Your task to perform on an android device: Check the latest 3D printers on Target. Image 0: 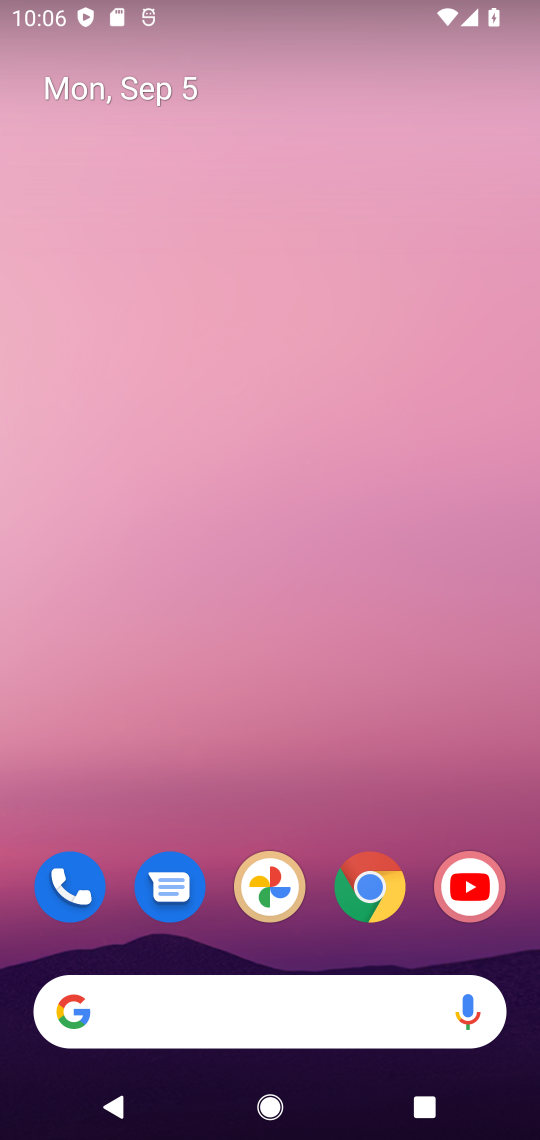
Step 0: click (359, 886)
Your task to perform on an android device: Check the latest 3D printers on Target. Image 1: 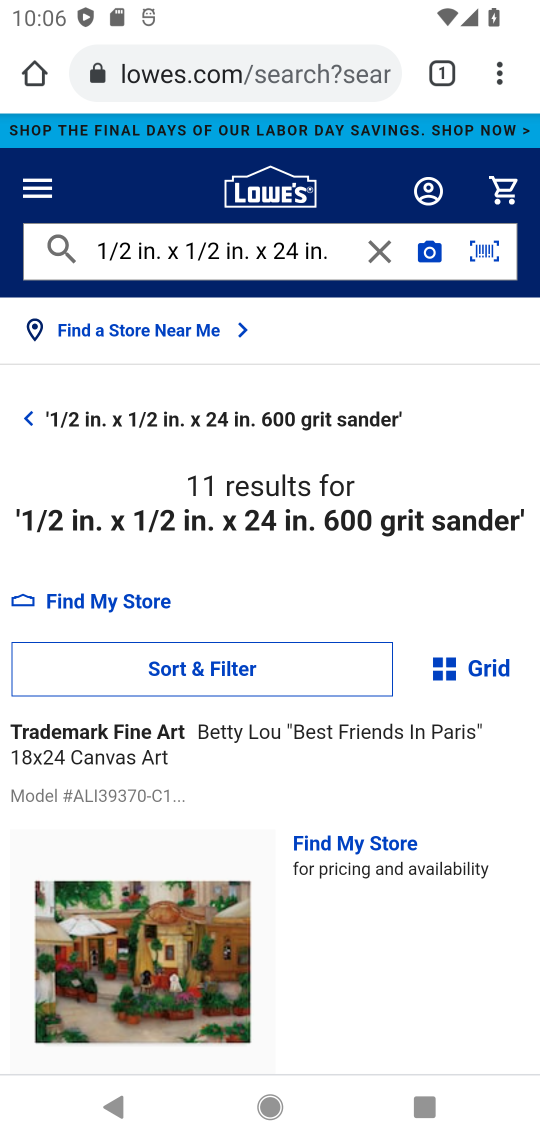
Step 1: click (320, 78)
Your task to perform on an android device: Check the latest 3D printers on Target. Image 2: 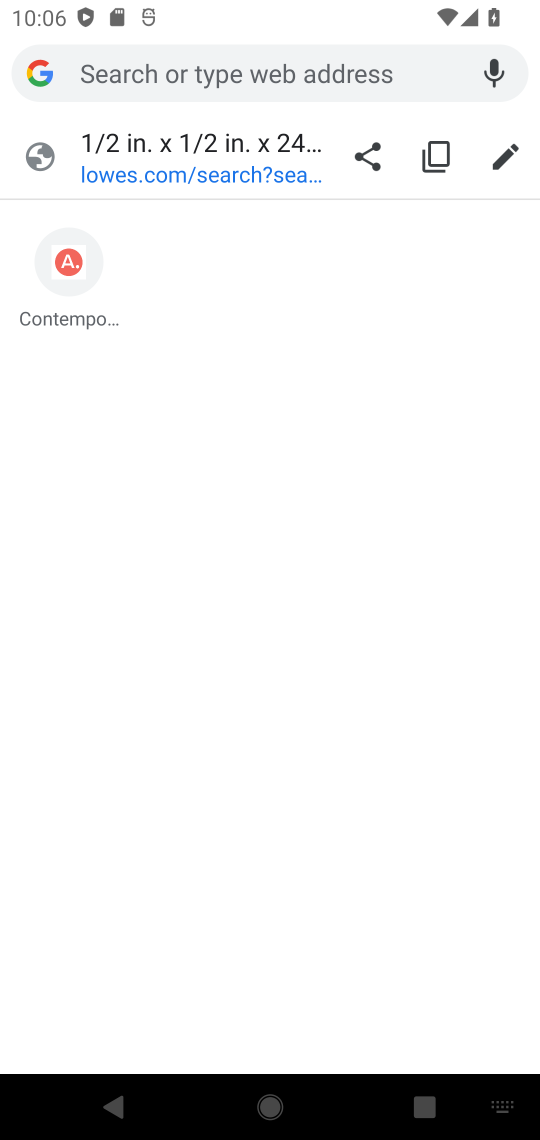
Step 2: type "target"
Your task to perform on an android device: Check the latest 3D printers on Target. Image 3: 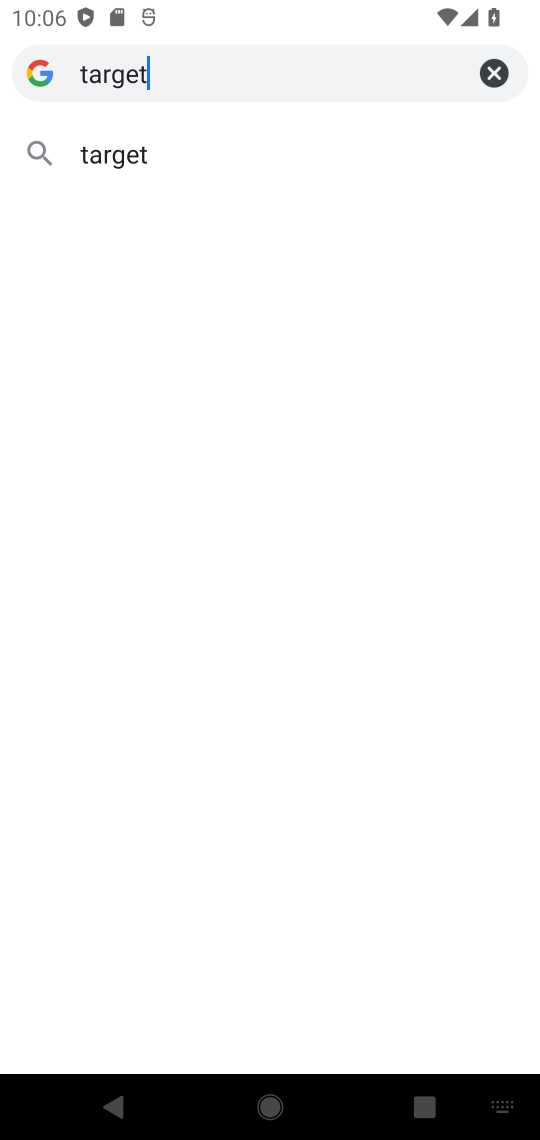
Step 3: click (140, 161)
Your task to perform on an android device: Check the latest 3D printers on Target. Image 4: 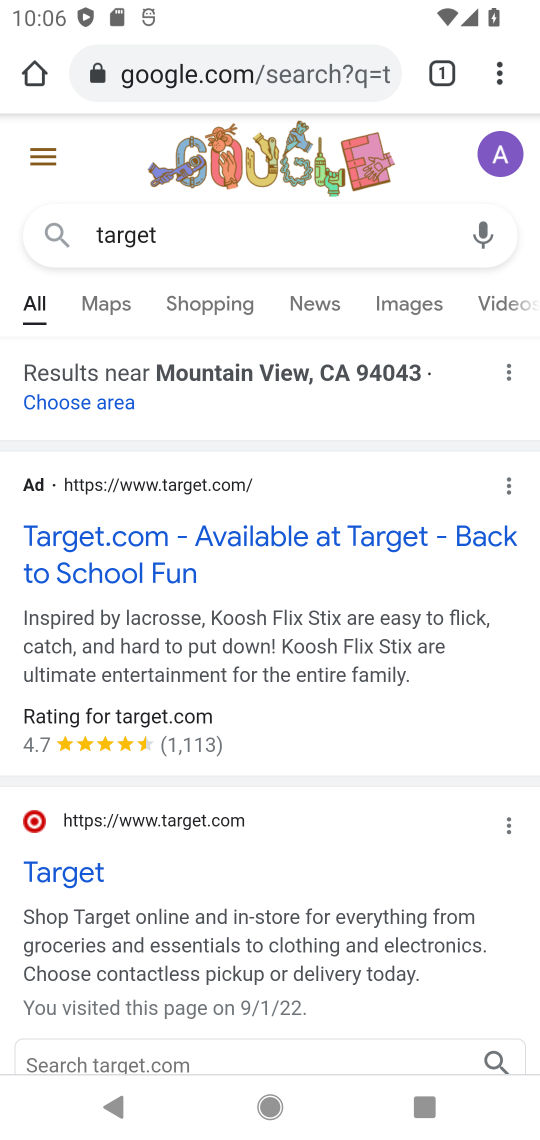
Step 4: click (178, 558)
Your task to perform on an android device: Check the latest 3D printers on Target. Image 5: 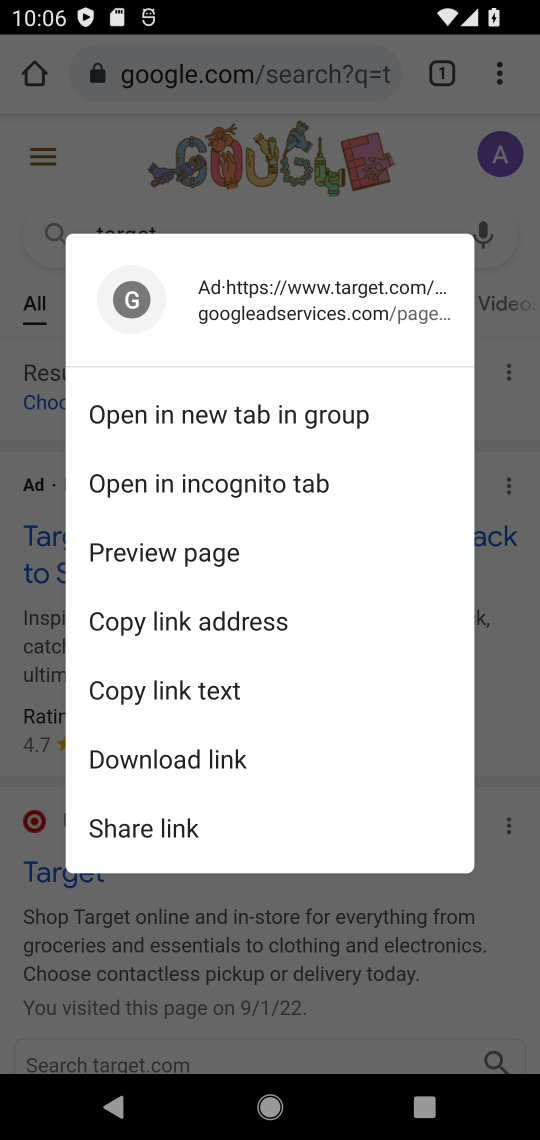
Step 5: click (55, 551)
Your task to perform on an android device: Check the latest 3D printers on Target. Image 6: 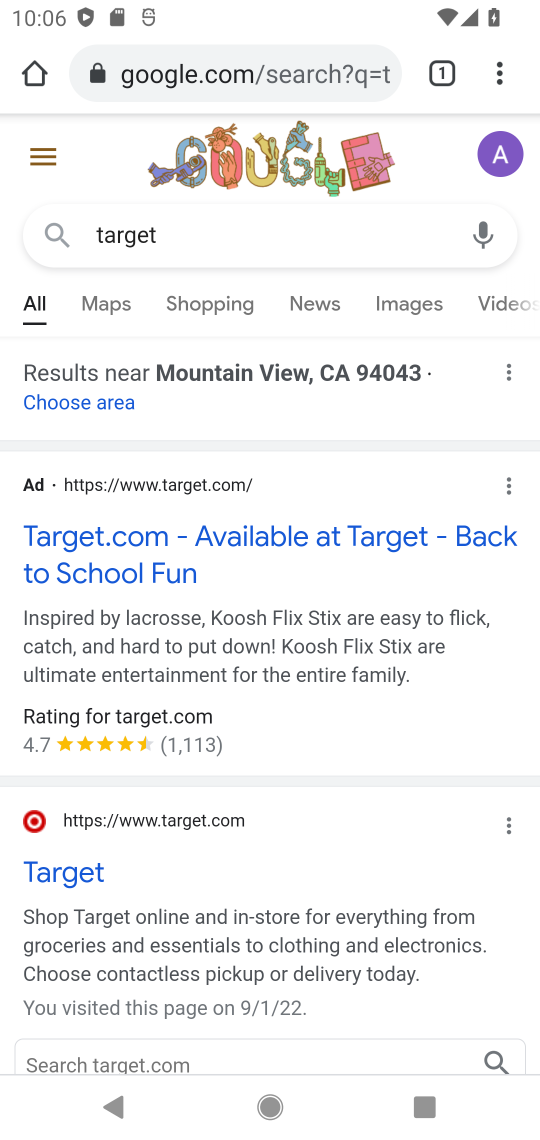
Step 6: click (86, 887)
Your task to perform on an android device: Check the latest 3D printers on Target. Image 7: 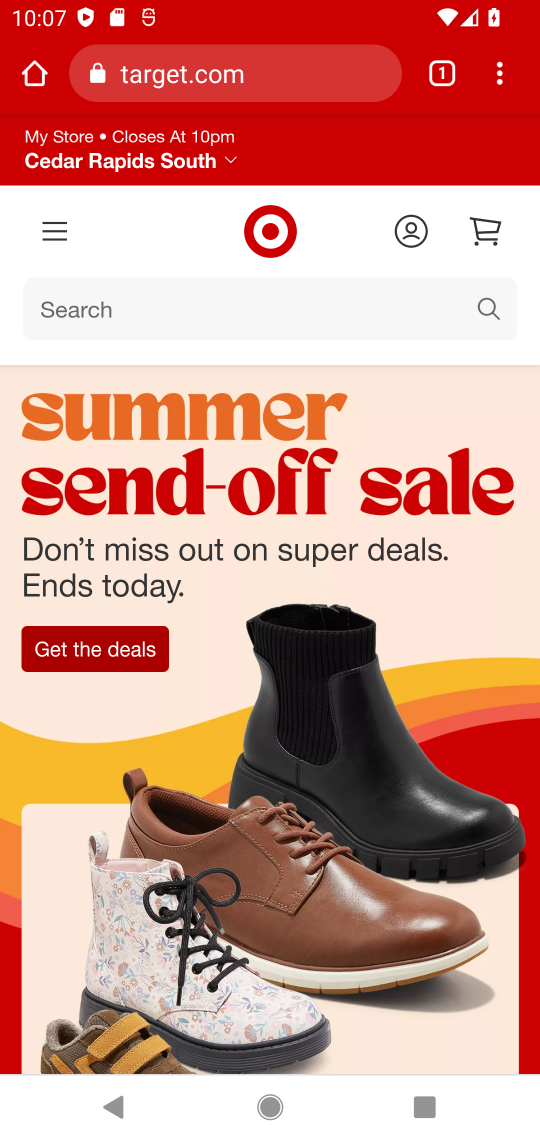
Step 7: click (311, 304)
Your task to perform on an android device: Check the latest 3D printers on Target. Image 8: 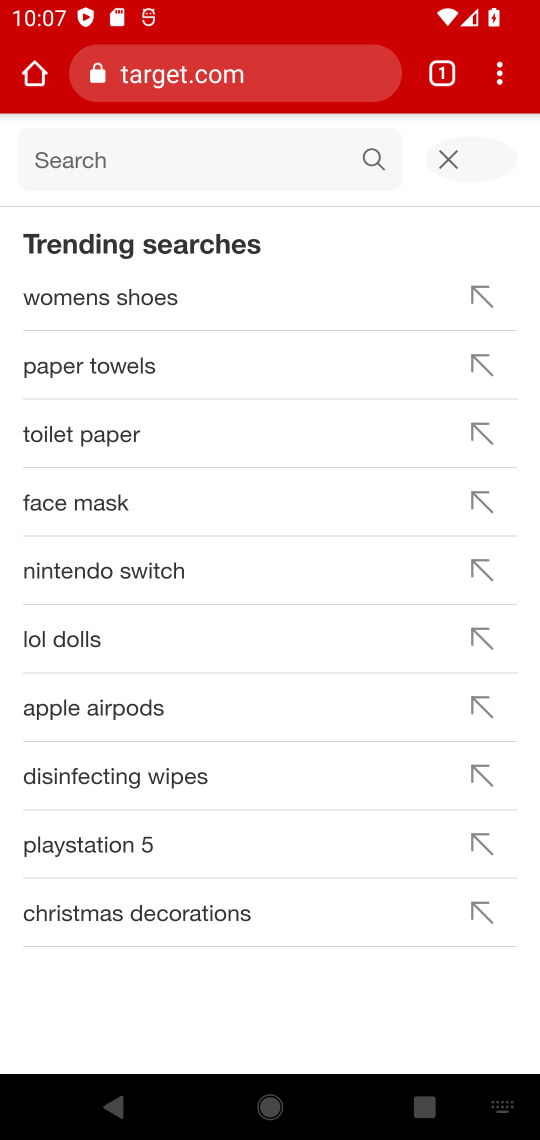
Step 8: type "3D printers"
Your task to perform on an android device: Check the latest 3D printers on Target. Image 9: 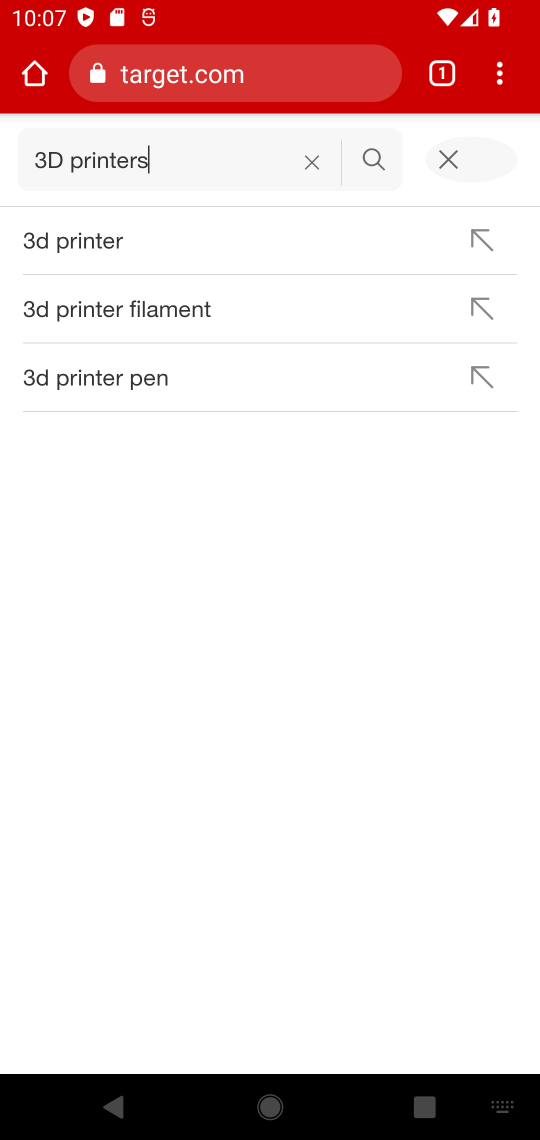
Step 9: click (77, 237)
Your task to perform on an android device: Check the latest 3D printers on Target. Image 10: 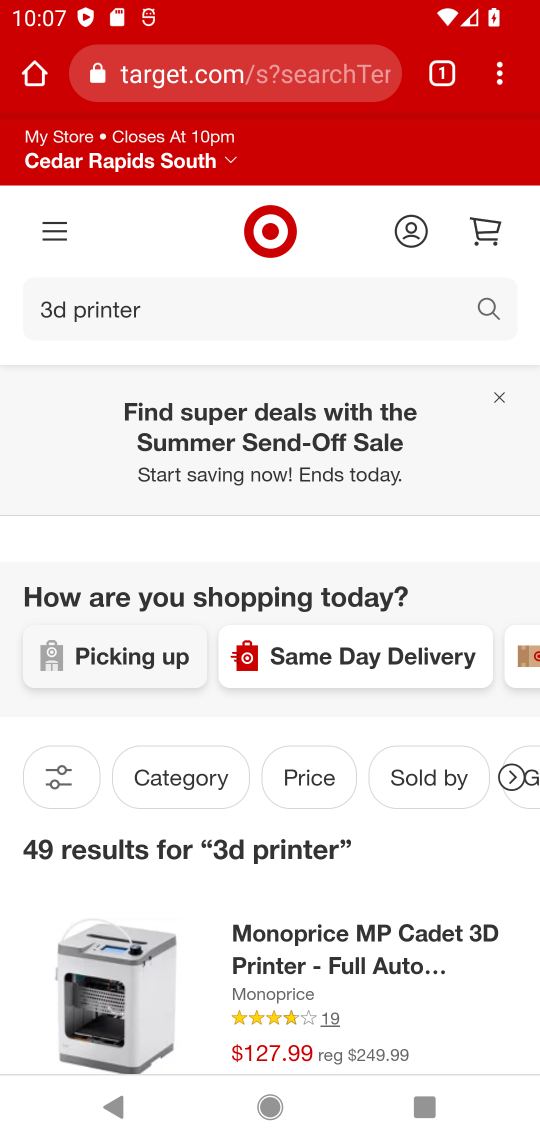
Step 10: task complete